Your task to perform on an android device: check android version Image 0: 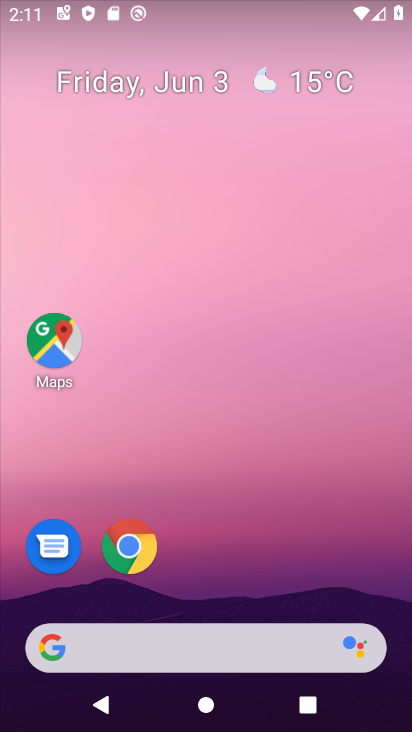
Step 0: drag from (237, 572) to (265, 84)
Your task to perform on an android device: check android version Image 1: 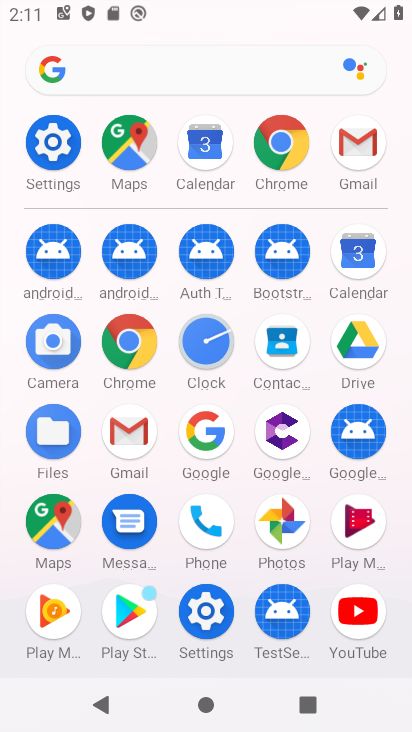
Step 1: click (45, 125)
Your task to perform on an android device: check android version Image 2: 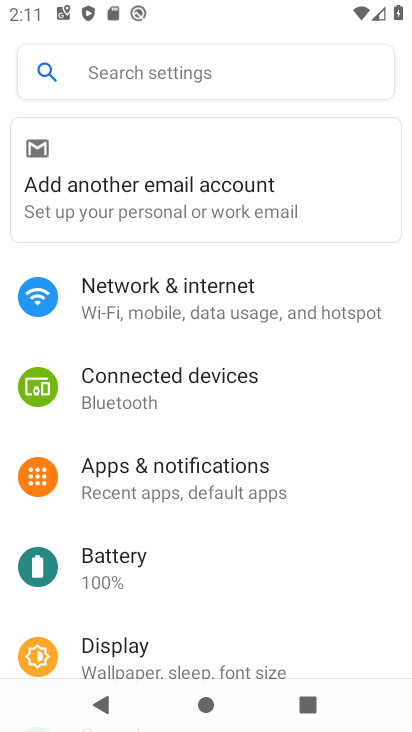
Step 2: task complete